Your task to perform on an android device: stop showing notifications on the lock screen Image 0: 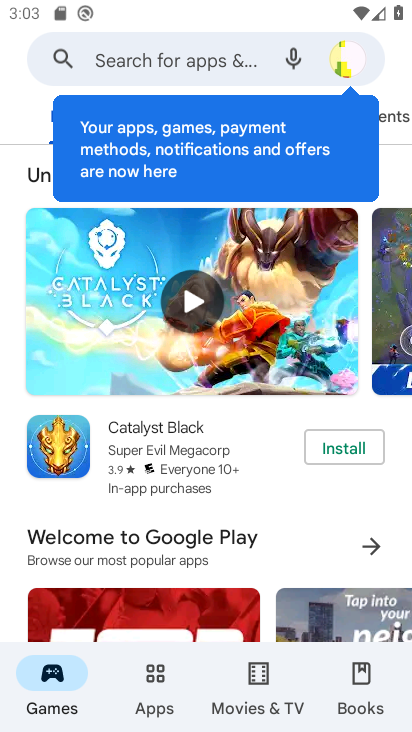
Step 0: press home button
Your task to perform on an android device: stop showing notifications on the lock screen Image 1: 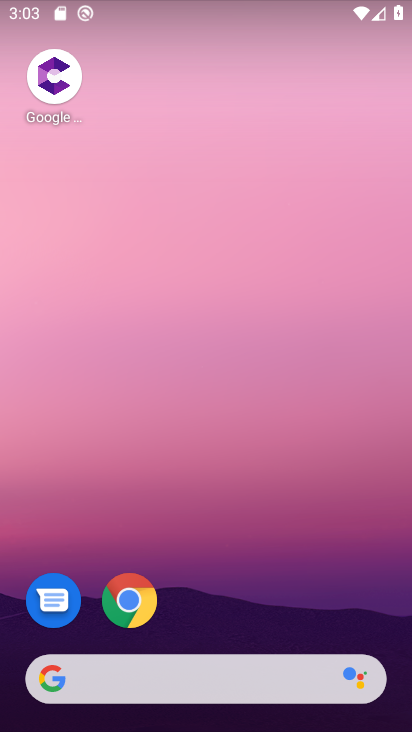
Step 1: drag from (337, 594) to (361, 145)
Your task to perform on an android device: stop showing notifications on the lock screen Image 2: 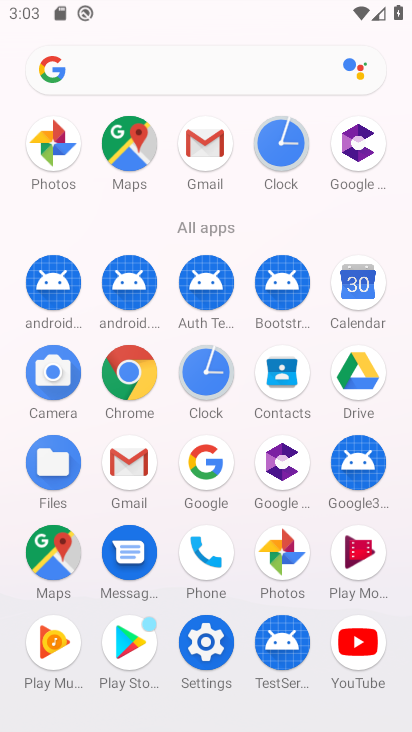
Step 2: click (371, 275)
Your task to perform on an android device: stop showing notifications on the lock screen Image 3: 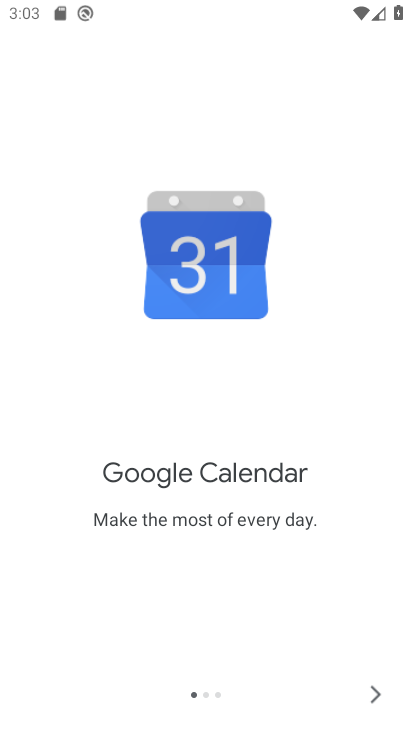
Step 3: click (376, 695)
Your task to perform on an android device: stop showing notifications on the lock screen Image 4: 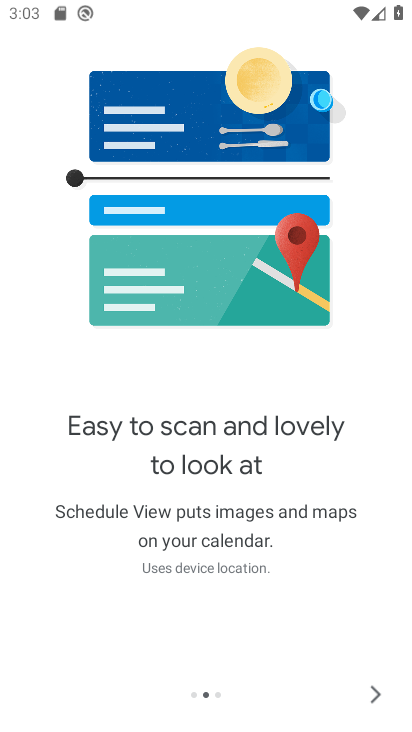
Step 4: click (376, 695)
Your task to perform on an android device: stop showing notifications on the lock screen Image 5: 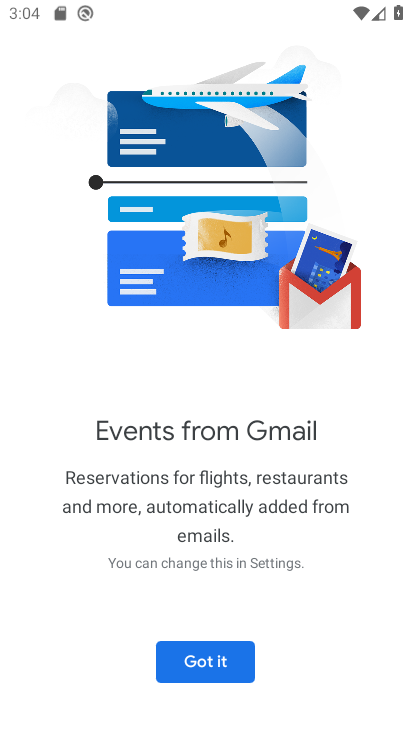
Step 5: click (190, 652)
Your task to perform on an android device: stop showing notifications on the lock screen Image 6: 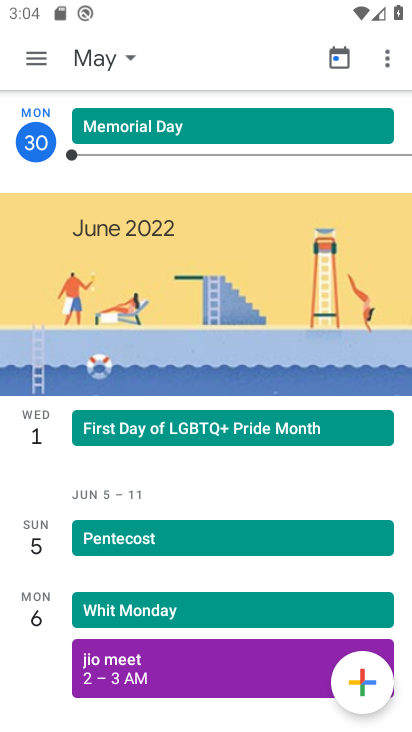
Step 6: click (386, 57)
Your task to perform on an android device: stop showing notifications on the lock screen Image 7: 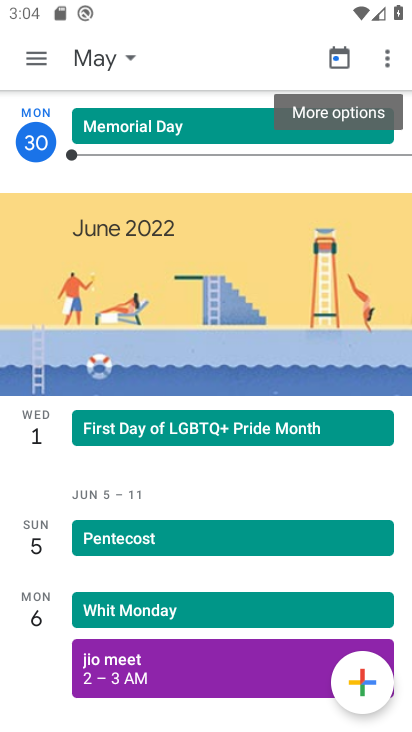
Step 7: press home button
Your task to perform on an android device: stop showing notifications on the lock screen Image 8: 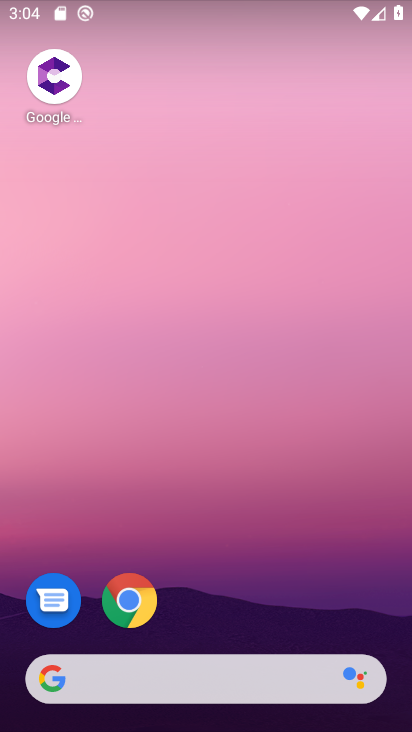
Step 8: drag from (202, 543) to (195, 40)
Your task to perform on an android device: stop showing notifications on the lock screen Image 9: 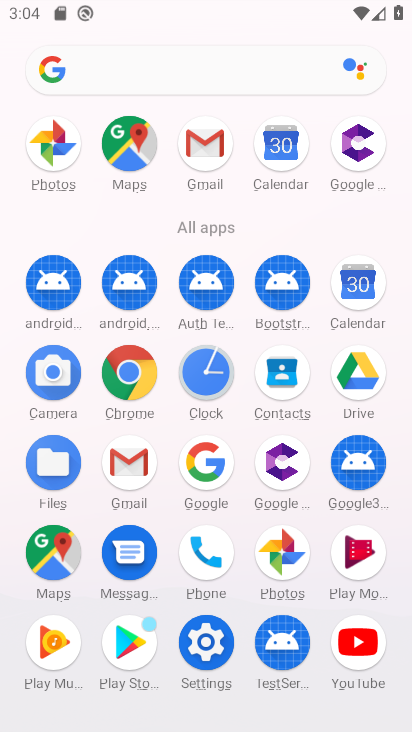
Step 9: click (225, 651)
Your task to perform on an android device: stop showing notifications on the lock screen Image 10: 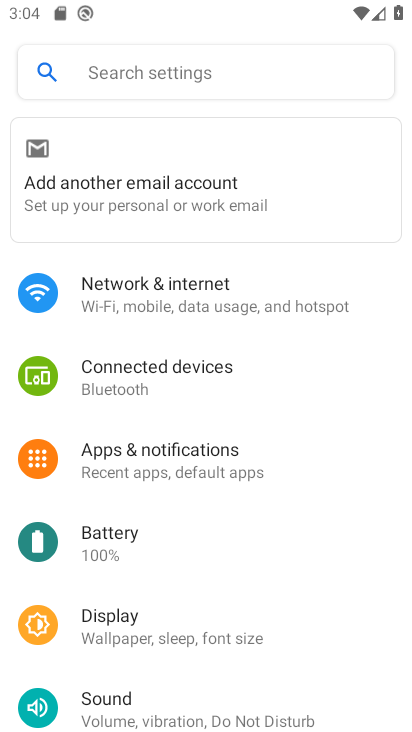
Step 10: click (134, 478)
Your task to perform on an android device: stop showing notifications on the lock screen Image 11: 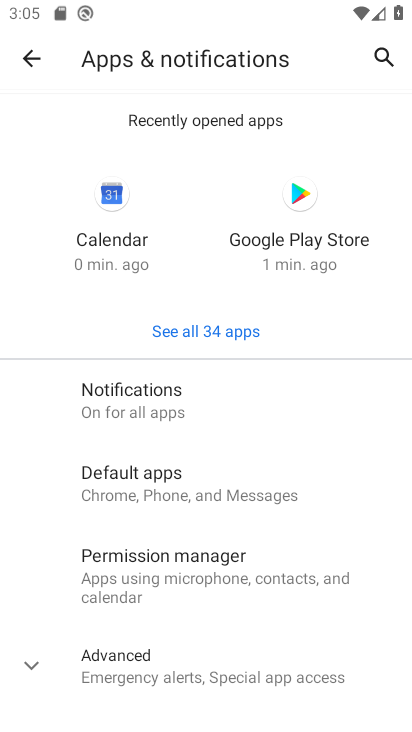
Step 11: click (194, 421)
Your task to perform on an android device: stop showing notifications on the lock screen Image 12: 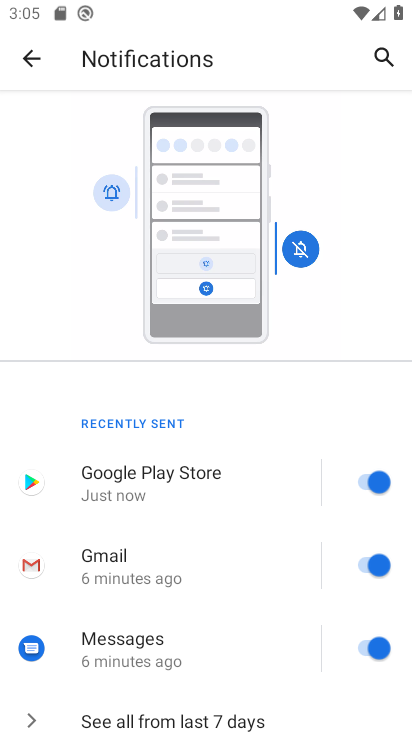
Step 12: drag from (228, 608) to (236, 112)
Your task to perform on an android device: stop showing notifications on the lock screen Image 13: 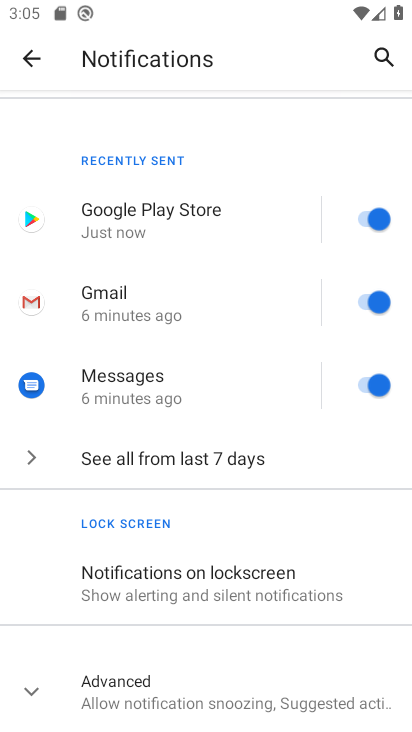
Step 13: click (205, 588)
Your task to perform on an android device: stop showing notifications on the lock screen Image 14: 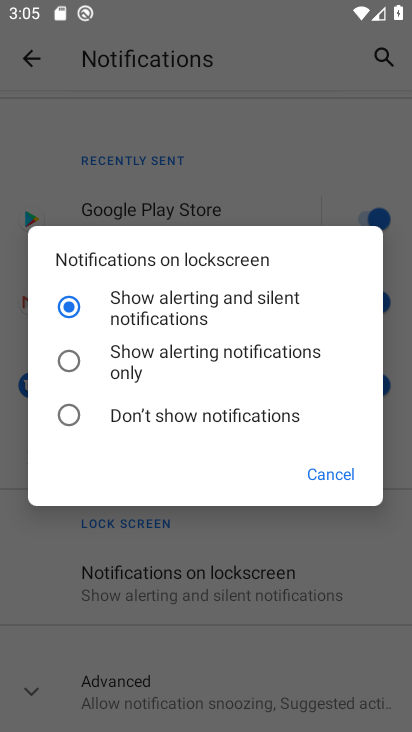
Step 14: click (206, 413)
Your task to perform on an android device: stop showing notifications on the lock screen Image 15: 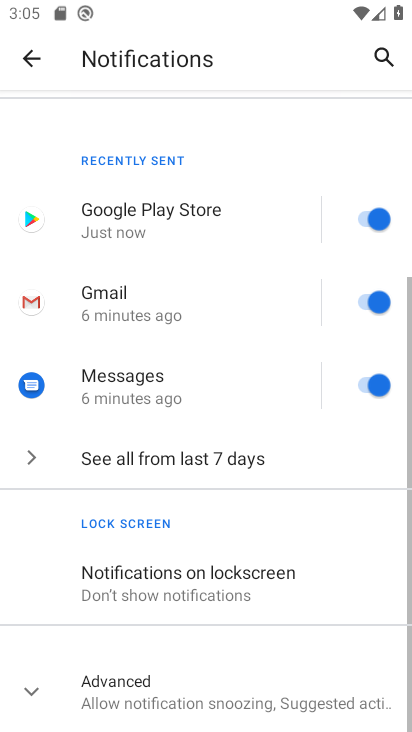
Step 15: task complete